Your task to perform on an android device: find snoozed emails in the gmail app Image 0: 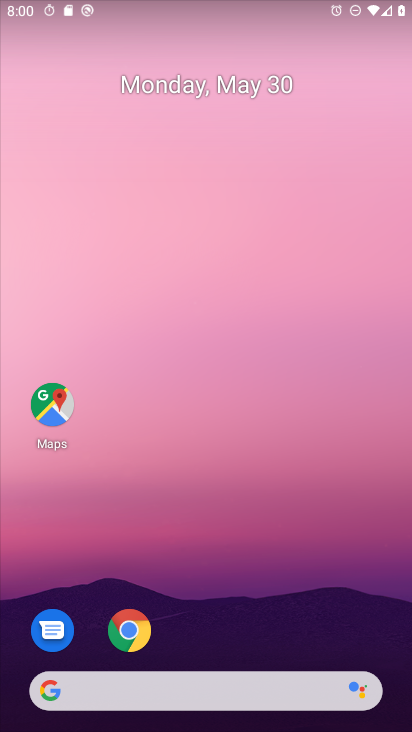
Step 0: click (198, 0)
Your task to perform on an android device: find snoozed emails in the gmail app Image 1: 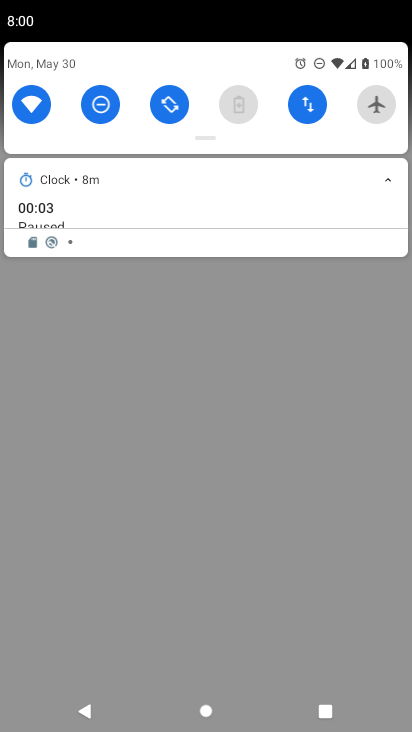
Step 1: press back button
Your task to perform on an android device: find snoozed emails in the gmail app Image 2: 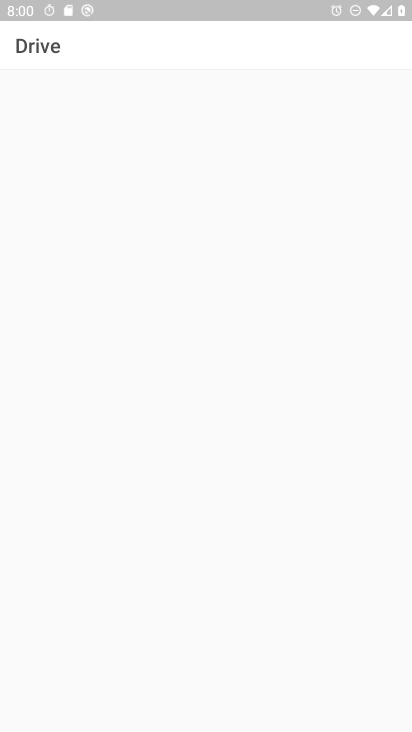
Step 2: press home button
Your task to perform on an android device: find snoozed emails in the gmail app Image 3: 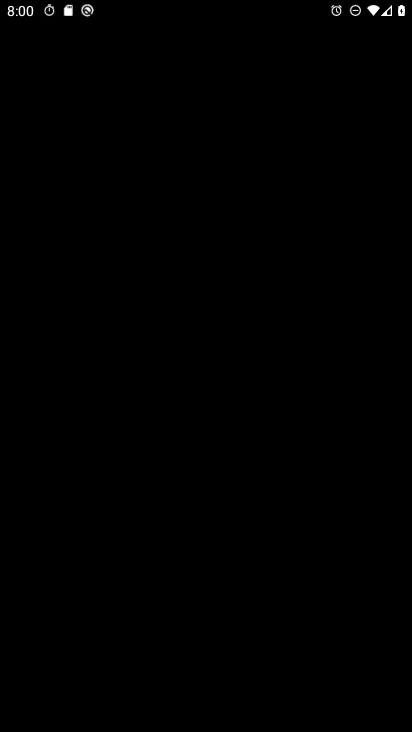
Step 3: press home button
Your task to perform on an android device: find snoozed emails in the gmail app Image 4: 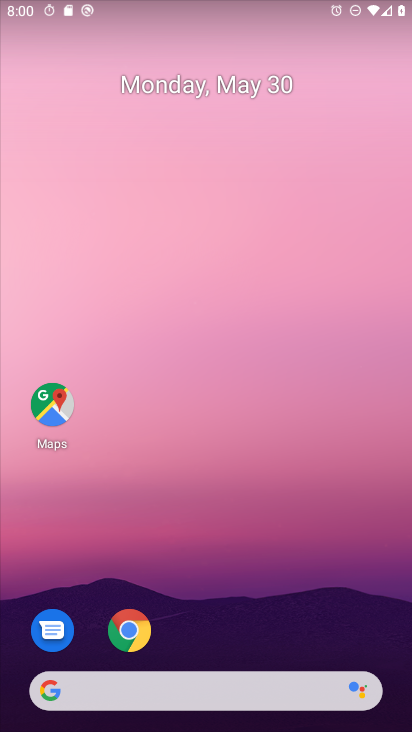
Step 4: drag from (261, 627) to (257, 156)
Your task to perform on an android device: find snoozed emails in the gmail app Image 5: 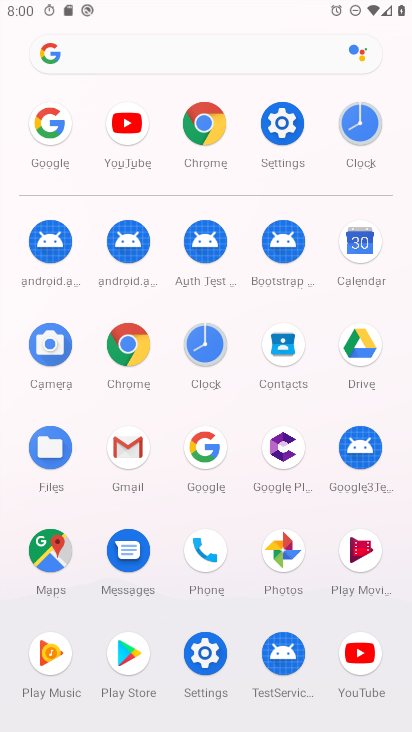
Step 5: click (128, 452)
Your task to perform on an android device: find snoozed emails in the gmail app Image 6: 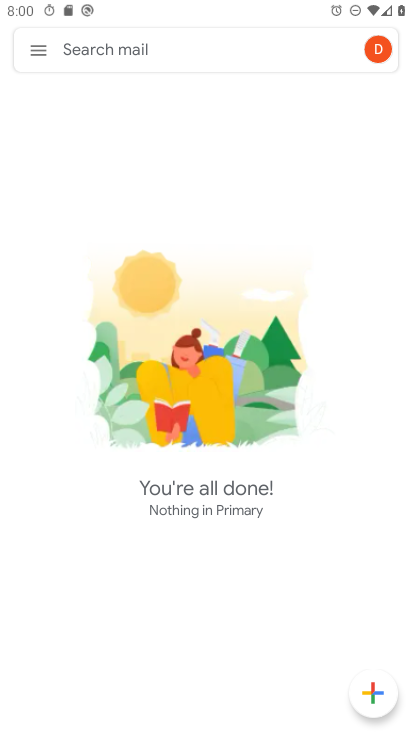
Step 6: click (34, 44)
Your task to perform on an android device: find snoozed emails in the gmail app Image 7: 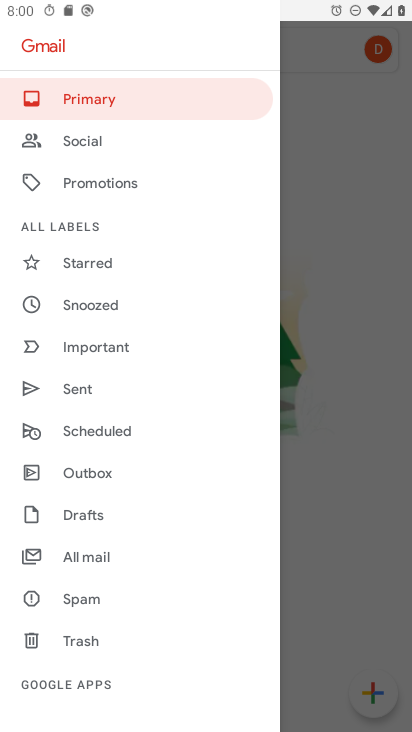
Step 7: click (118, 312)
Your task to perform on an android device: find snoozed emails in the gmail app Image 8: 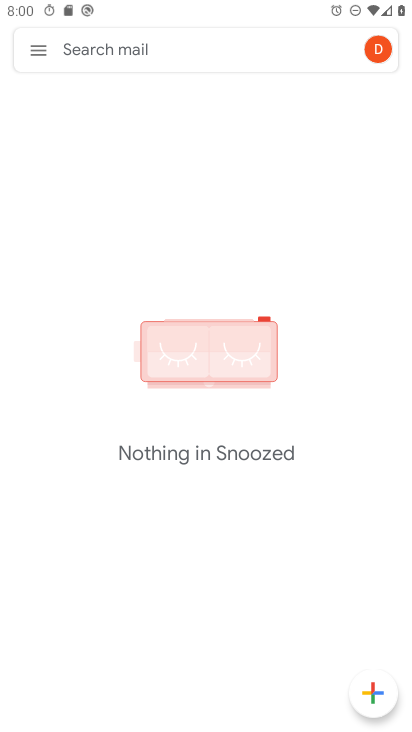
Step 8: task complete